Your task to perform on an android device: Go to CNN.com Image 0: 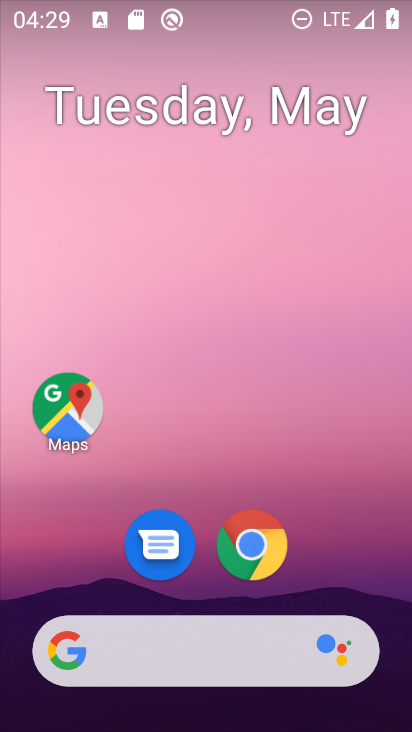
Step 0: click (251, 543)
Your task to perform on an android device: Go to CNN.com Image 1: 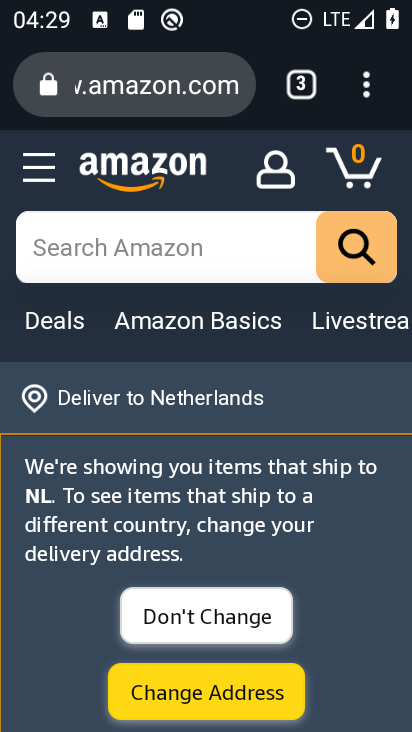
Step 1: click (132, 83)
Your task to perform on an android device: Go to CNN.com Image 2: 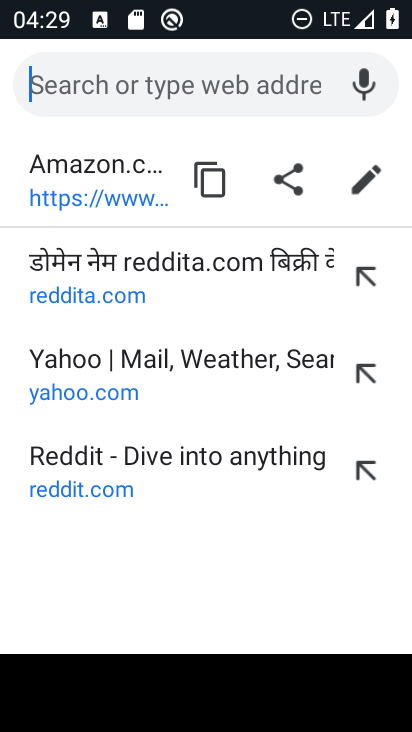
Step 2: type "cnn.com"
Your task to perform on an android device: Go to CNN.com Image 3: 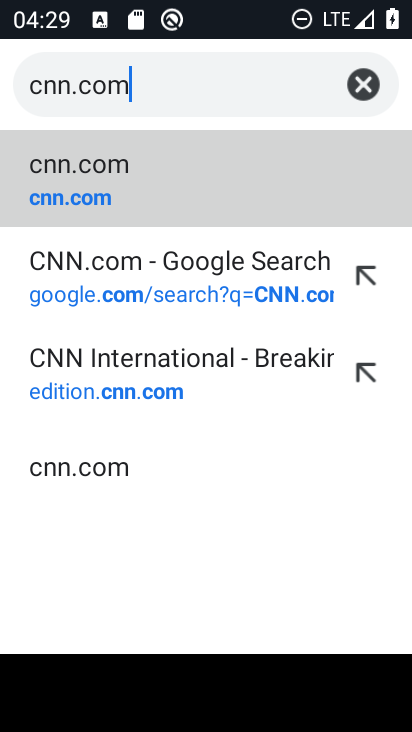
Step 3: click (84, 180)
Your task to perform on an android device: Go to CNN.com Image 4: 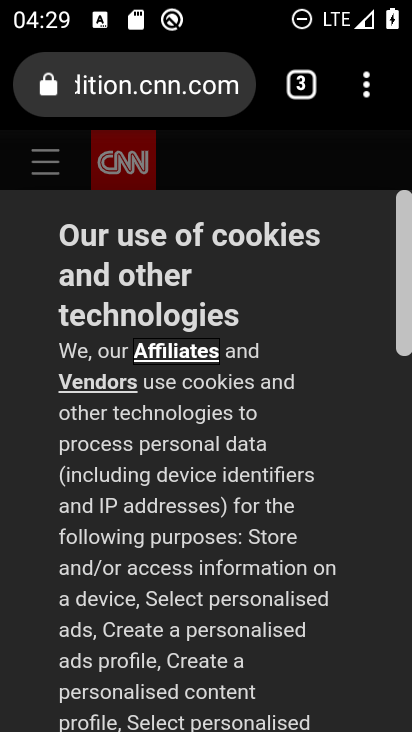
Step 4: task complete